Your task to perform on an android device: turn on the 12-hour format for clock Image 0: 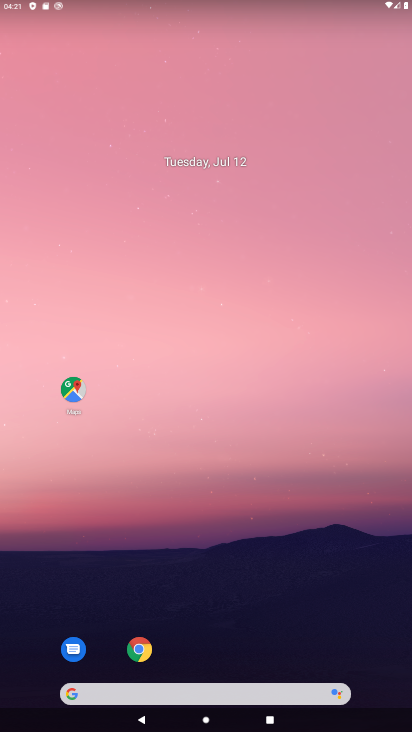
Step 0: drag from (218, 693) to (225, 143)
Your task to perform on an android device: turn on the 12-hour format for clock Image 1: 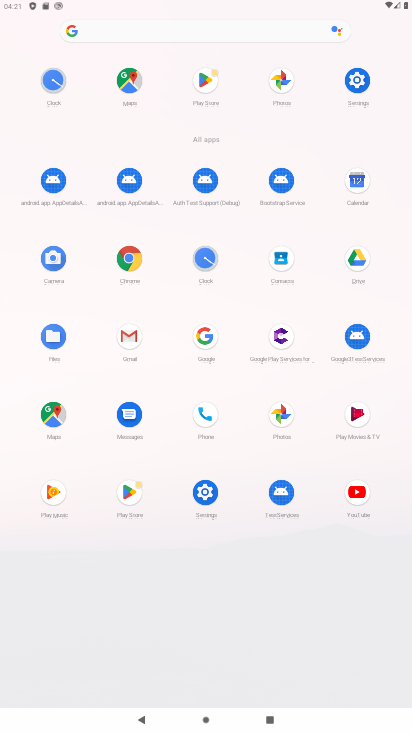
Step 1: click (205, 260)
Your task to perform on an android device: turn on the 12-hour format for clock Image 2: 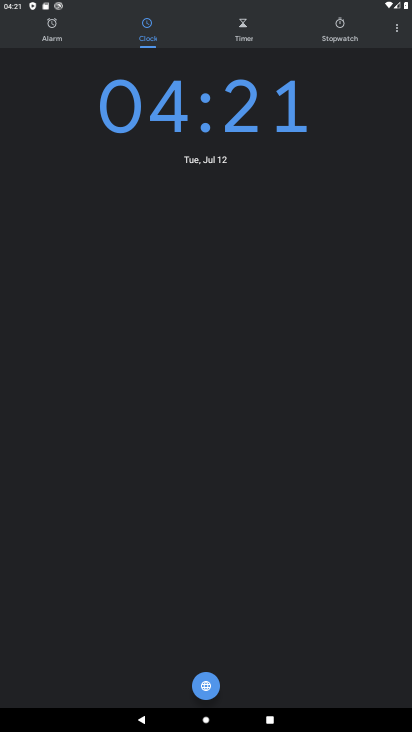
Step 2: click (400, 29)
Your task to perform on an android device: turn on the 12-hour format for clock Image 3: 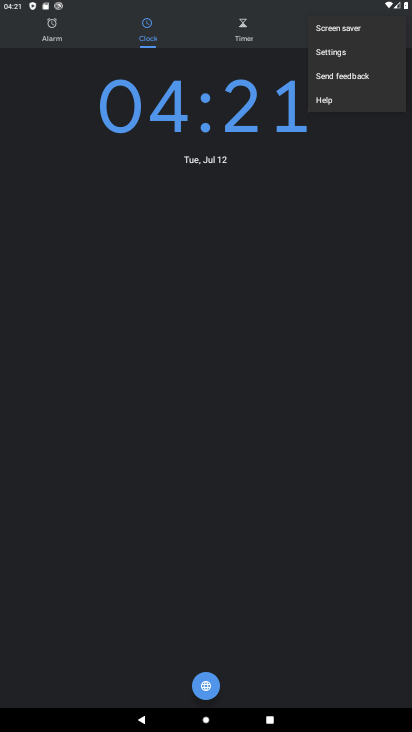
Step 3: click (331, 54)
Your task to perform on an android device: turn on the 12-hour format for clock Image 4: 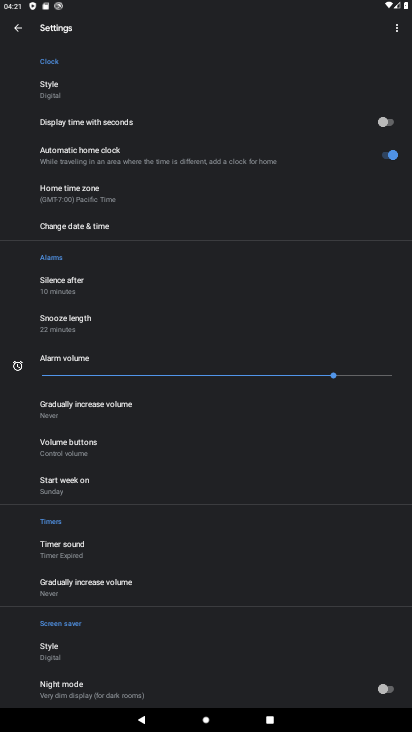
Step 4: click (83, 231)
Your task to perform on an android device: turn on the 12-hour format for clock Image 5: 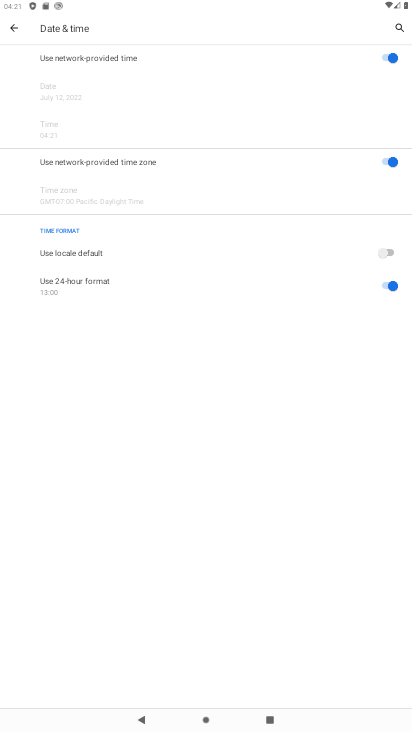
Step 5: click (383, 290)
Your task to perform on an android device: turn on the 12-hour format for clock Image 6: 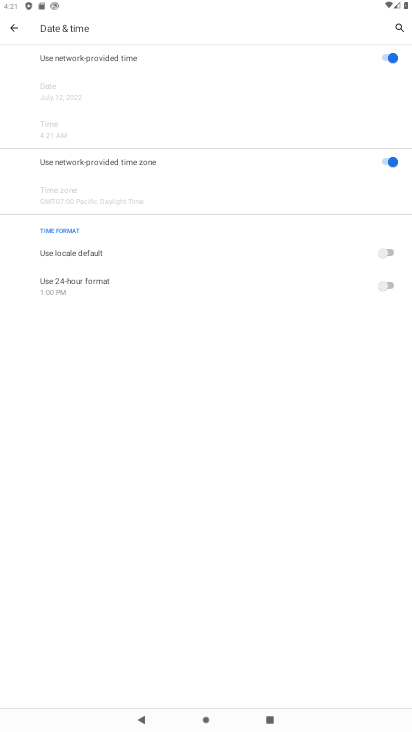
Step 6: click (382, 257)
Your task to perform on an android device: turn on the 12-hour format for clock Image 7: 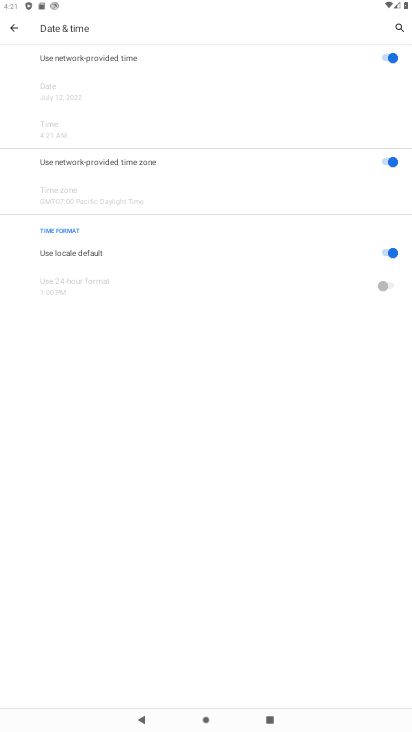
Step 7: task complete